Your task to perform on an android device: delete browsing data in the chrome app Image 0: 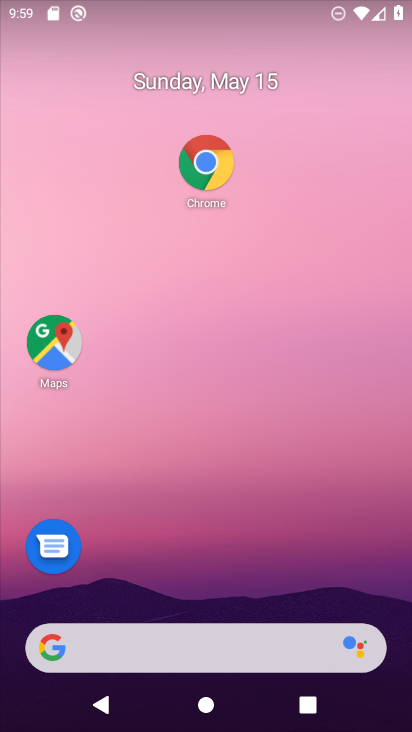
Step 0: drag from (245, 582) to (268, 225)
Your task to perform on an android device: delete browsing data in the chrome app Image 1: 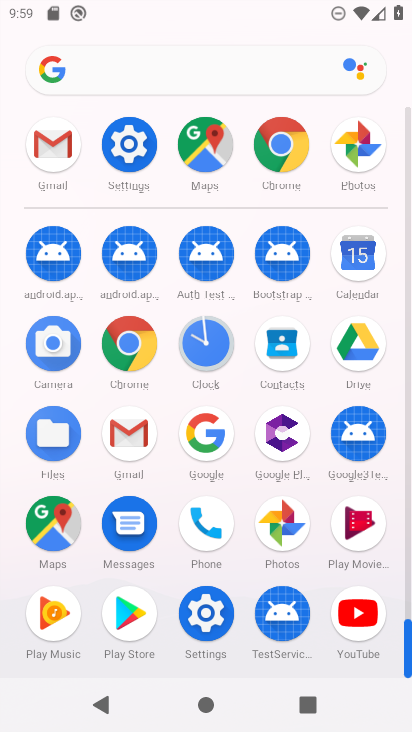
Step 1: click (293, 143)
Your task to perform on an android device: delete browsing data in the chrome app Image 2: 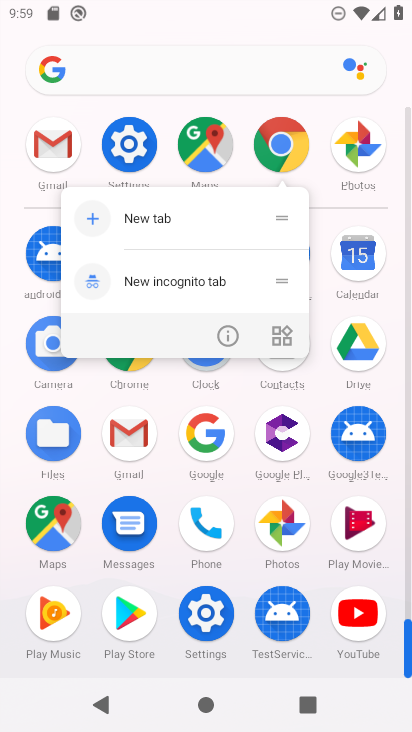
Step 2: click (289, 141)
Your task to perform on an android device: delete browsing data in the chrome app Image 3: 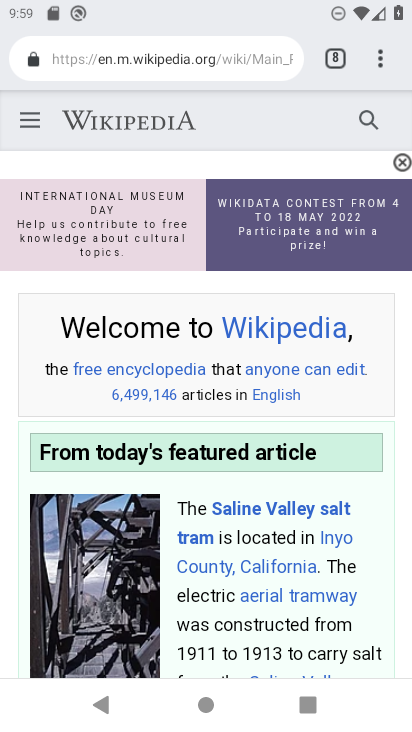
Step 3: click (365, 51)
Your task to perform on an android device: delete browsing data in the chrome app Image 4: 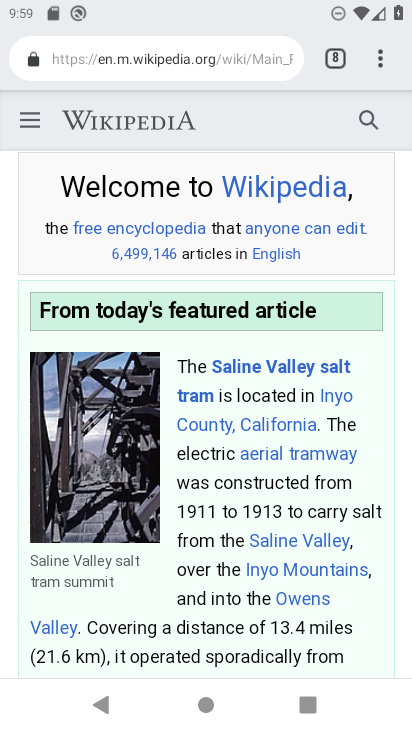
Step 4: click (364, 53)
Your task to perform on an android device: delete browsing data in the chrome app Image 5: 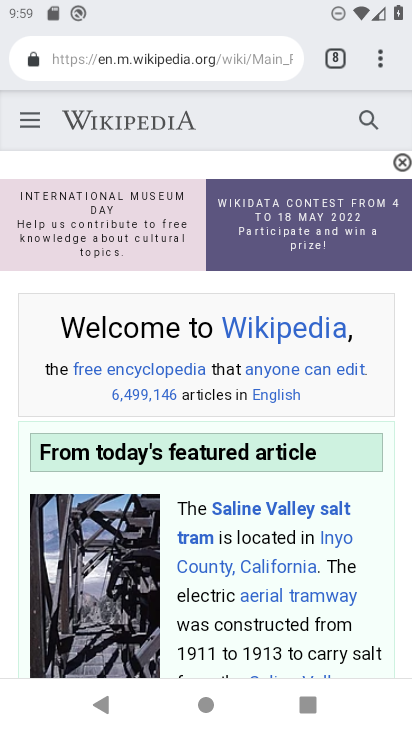
Step 5: click (366, 55)
Your task to perform on an android device: delete browsing data in the chrome app Image 6: 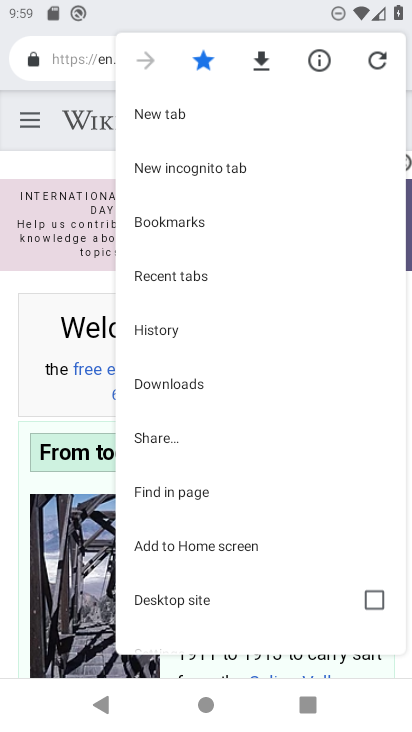
Step 6: click (191, 326)
Your task to perform on an android device: delete browsing data in the chrome app Image 7: 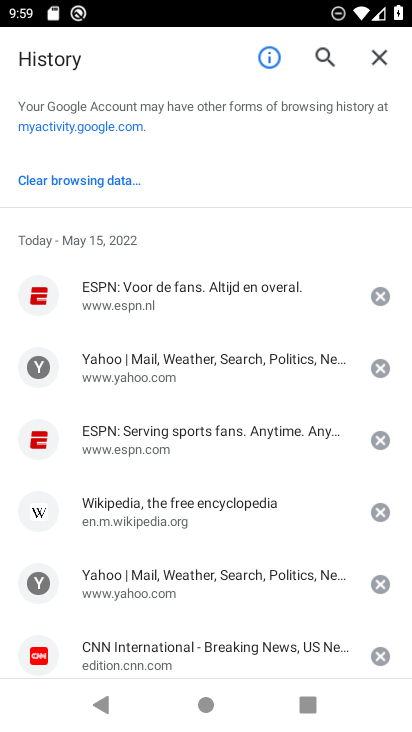
Step 7: click (78, 177)
Your task to perform on an android device: delete browsing data in the chrome app Image 8: 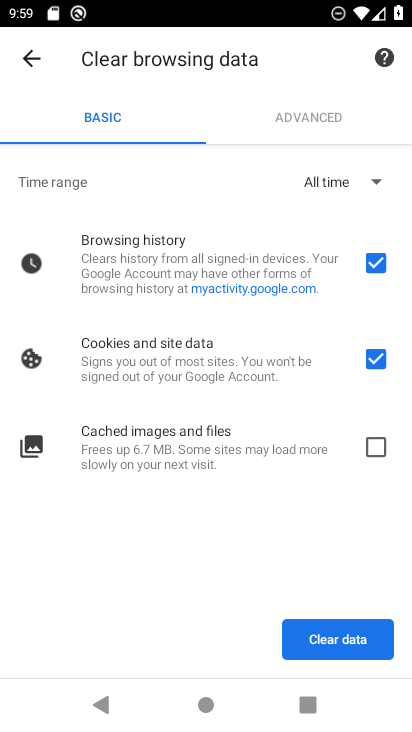
Step 8: click (329, 632)
Your task to perform on an android device: delete browsing data in the chrome app Image 9: 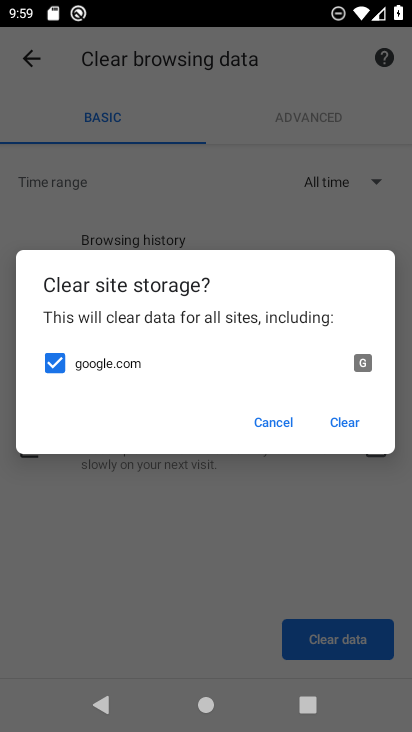
Step 9: click (348, 413)
Your task to perform on an android device: delete browsing data in the chrome app Image 10: 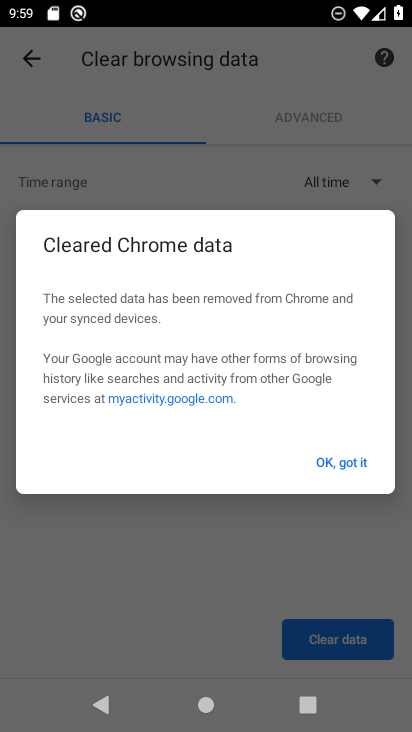
Step 10: click (337, 470)
Your task to perform on an android device: delete browsing data in the chrome app Image 11: 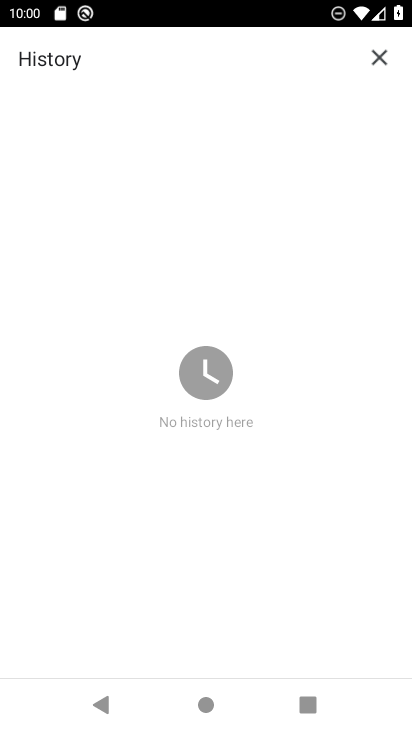
Step 11: task complete